Your task to perform on an android device: Open privacy settings Image 0: 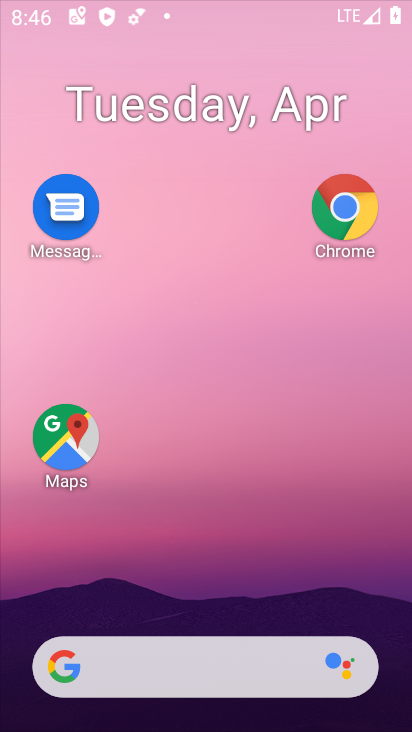
Step 0: drag from (205, 620) to (367, 14)
Your task to perform on an android device: Open privacy settings Image 1: 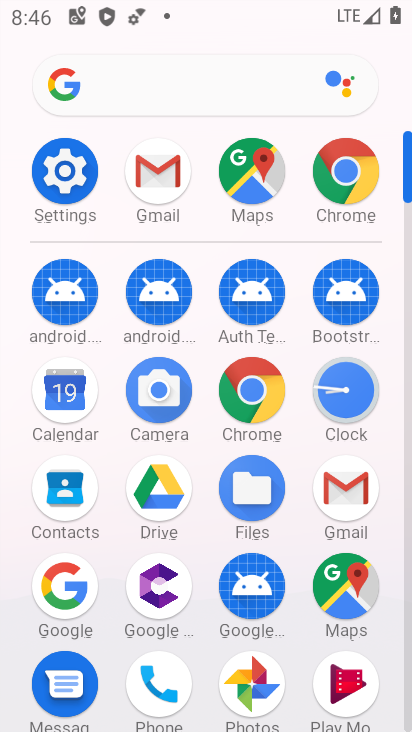
Step 1: click (75, 184)
Your task to perform on an android device: Open privacy settings Image 2: 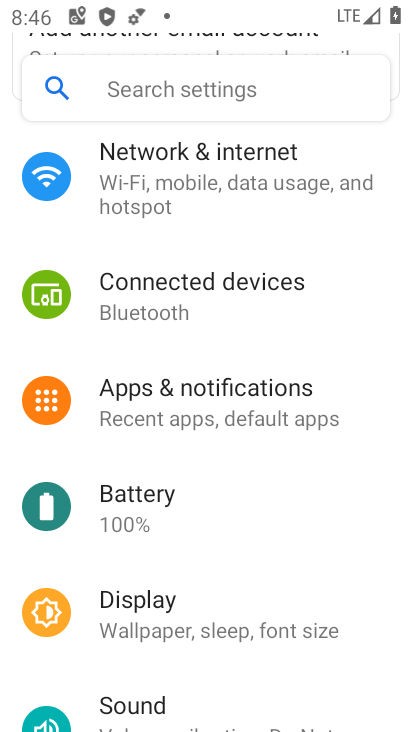
Step 2: drag from (210, 588) to (221, 89)
Your task to perform on an android device: Open privacy settings Image 3: 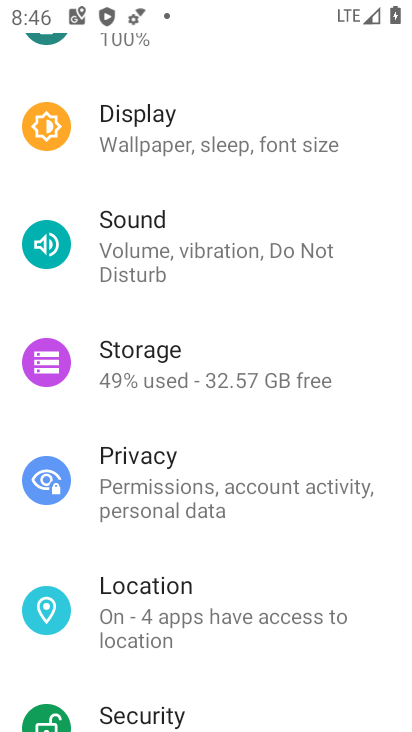
Step 3: drag from (166, 653) to (201, 205)
Your task to perform on an android device: Open privacy settings Image 4: 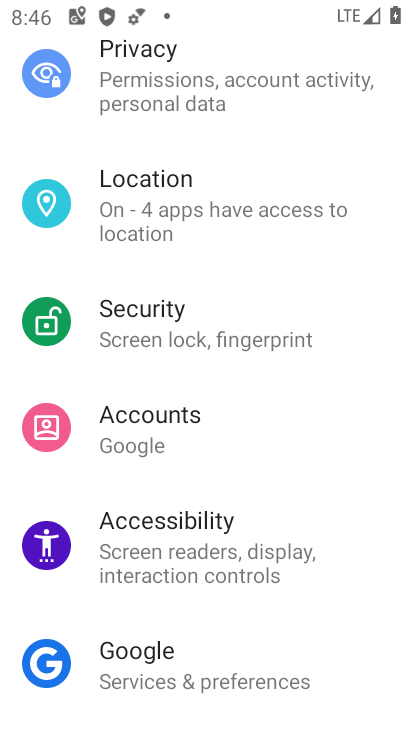
Step 4: click (100, 63)
Your task to perform on an android device: Open privacy settings Image 5: 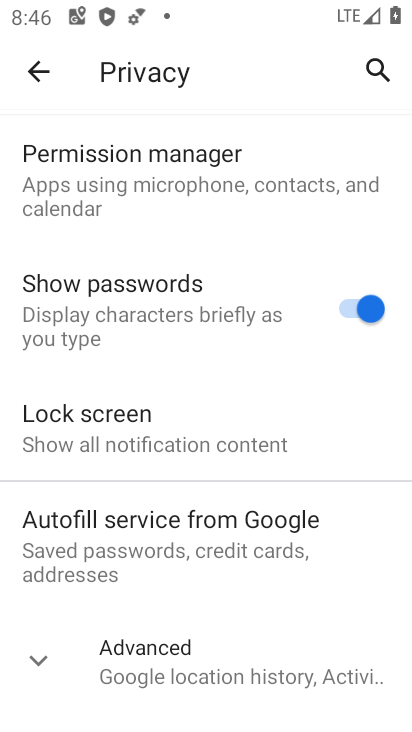
Step 5: task complete